Your task to perform on an android device: Search for a new perfume Image 0: 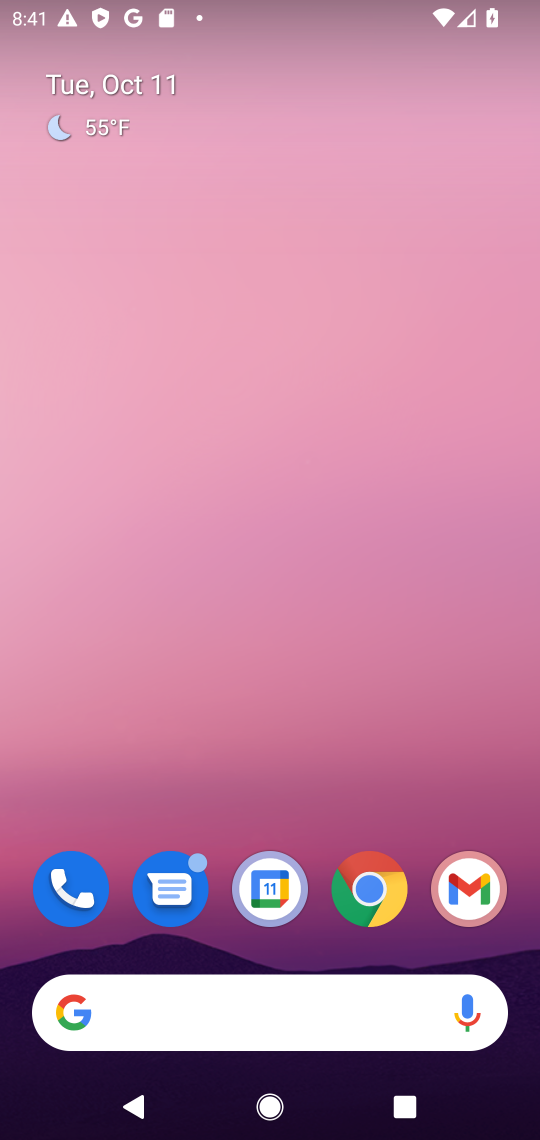
Step 0: click (220, 981)
Your task to perform on an android device: Search for a new perfume Image 1: 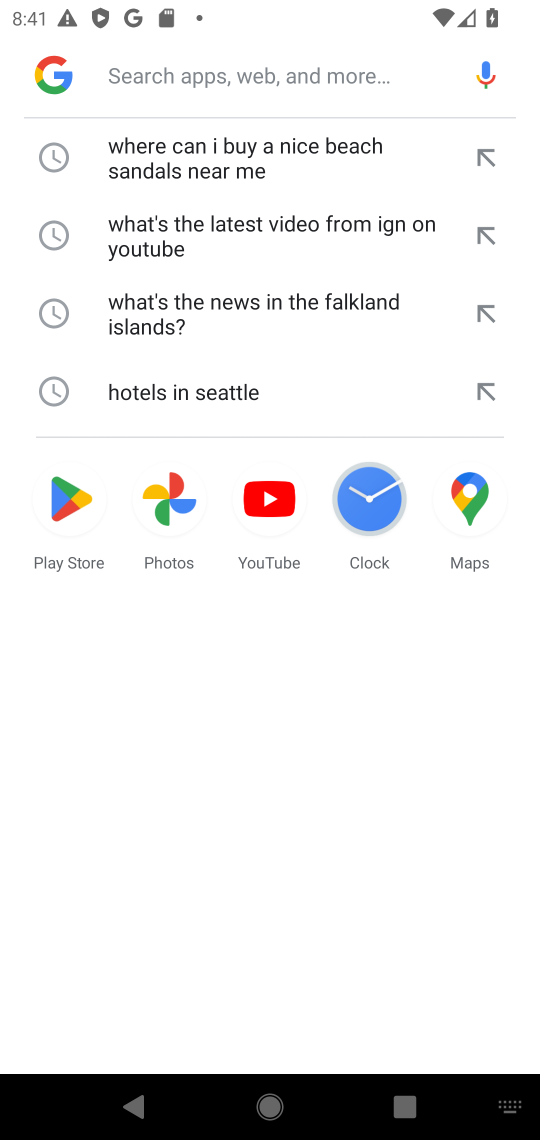
Step 1: click (158, 72)
Your task to perform on an android device: Search for a new perfume Image 2: 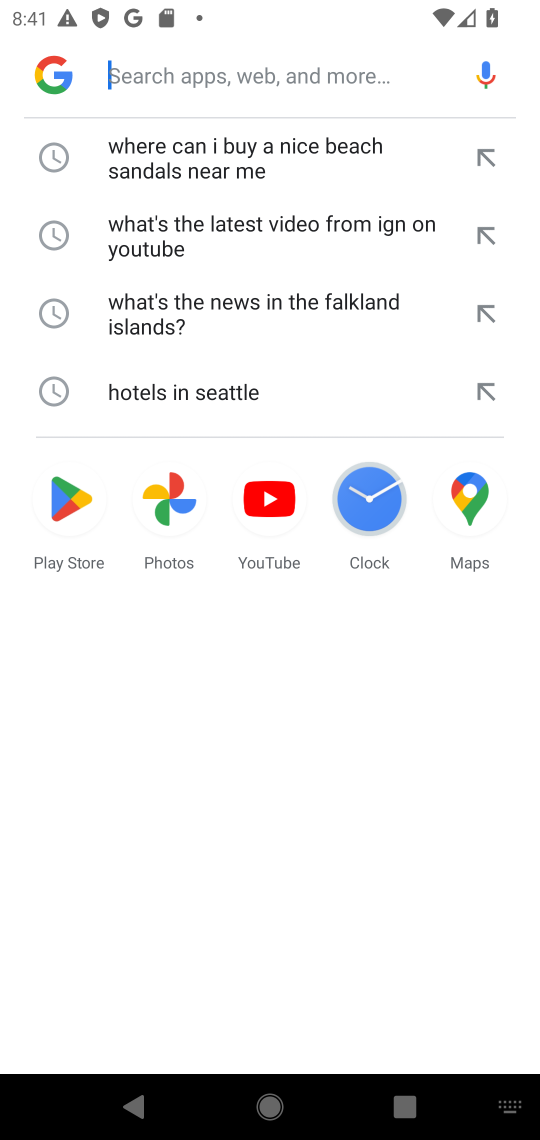
Step 2: type "new perfume"
Your task to perform on an android device: Search for a new perfume Image 3: 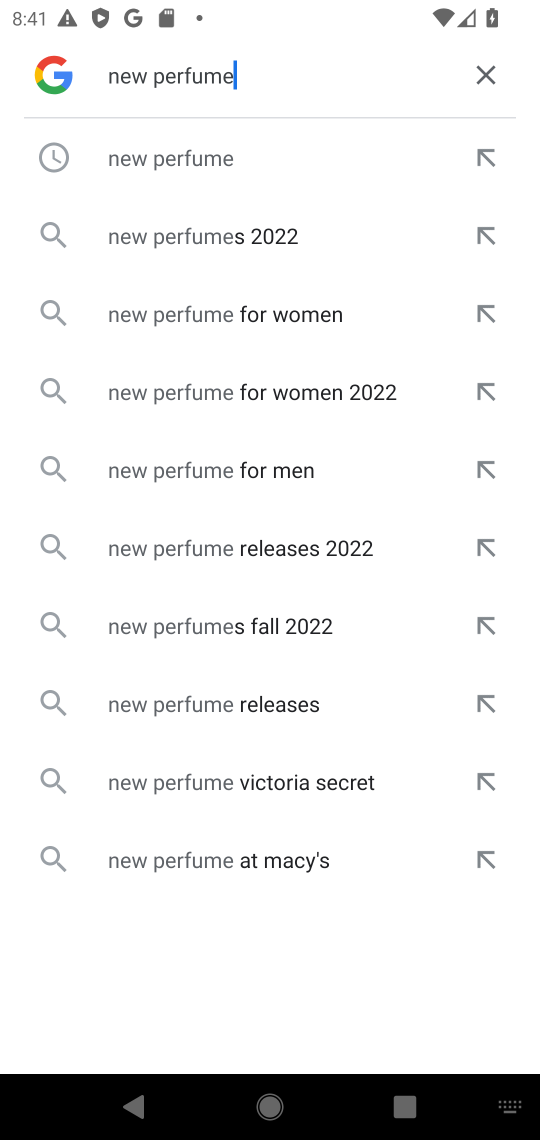
Step 3: click (160, 144)
Your task to perform on an android device: Search for a new perfume Image 4: 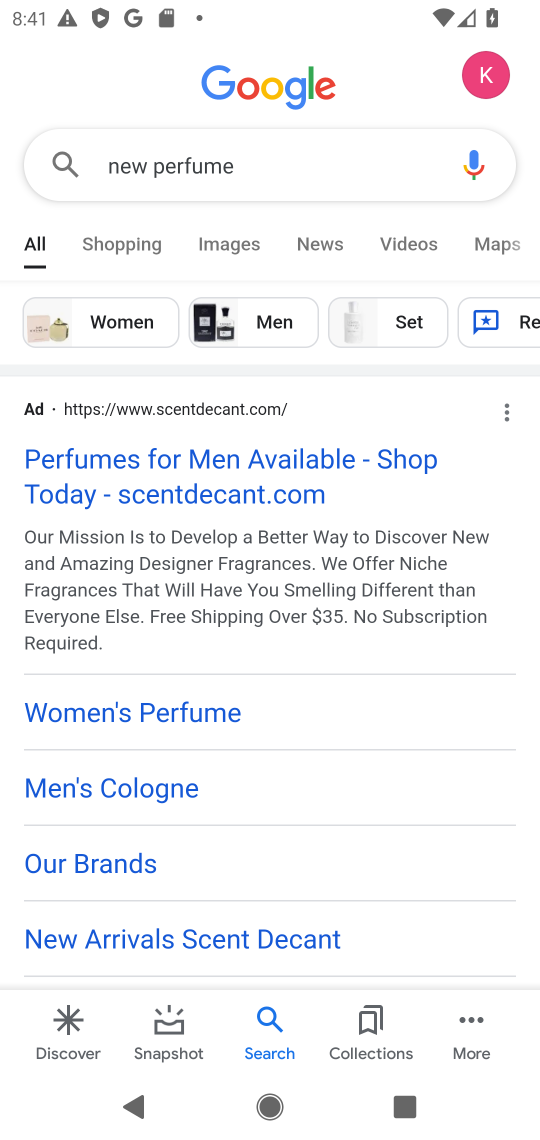
Step 4: task complete